Your task to perform on an android device: toggle priority inbox in the gmail app Image 0: 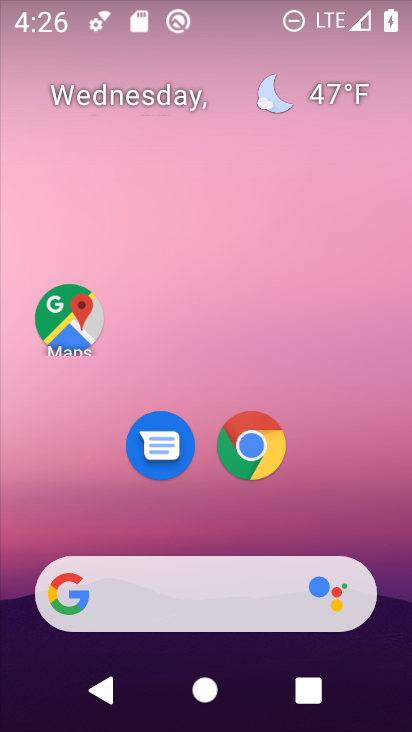
Step 0: drag from (349, 523) to (367, 40)
Your task to perform on an android device: toggle priority inbox in the gmail app Image 1: 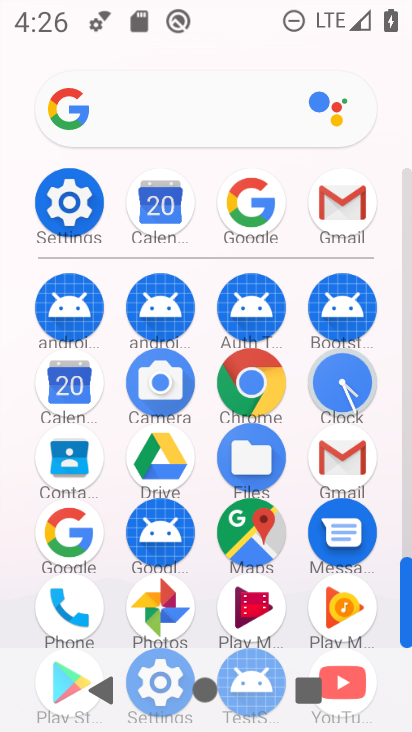
Step 1: click (341, 201)
Your task to perform on an android device: toggle priority inbox in the gmail app Image 2: 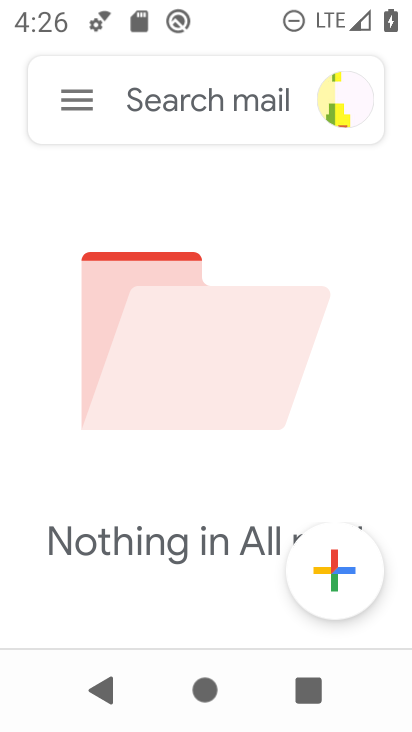
Step 2: click (76, 109)
Your task to perform on an android device: toggle priority inbox in the gmail app Image 3: 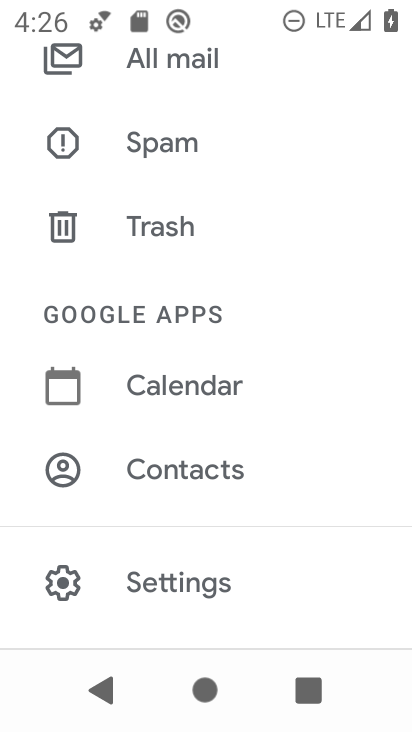
Step 3: click (199, 579)
Your task to perform on an android device: toggle priority inbox in the gmail app Image 4: 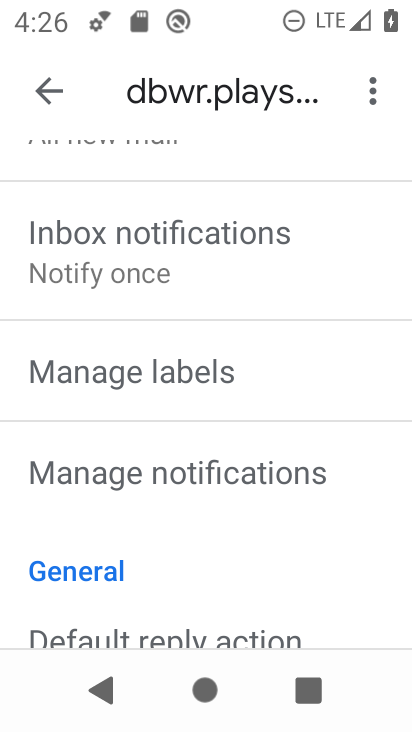
Step 4: drag from (216, 274) to (232, 409)
Your task to perform on an android device: toggle priority inbox in the gmail app Image 5: 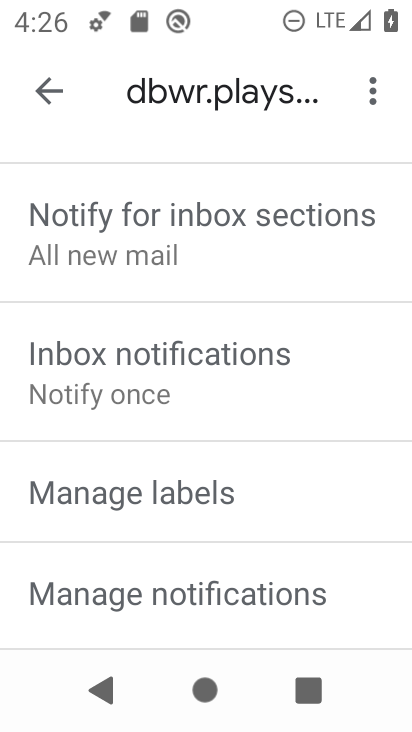
Step 5: drag from (199, 294) to (233, 435)
Your task to perform on an android device: toggle priority inbox in the gmail app Image 6: 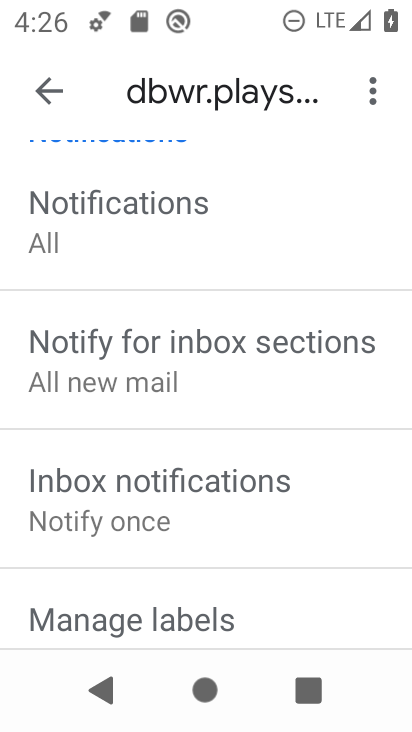
Step 6: drag from (215, 235) to (243, 441)
Your task to perform on an android device: toggle priority inbox in the gmail app Image 7: 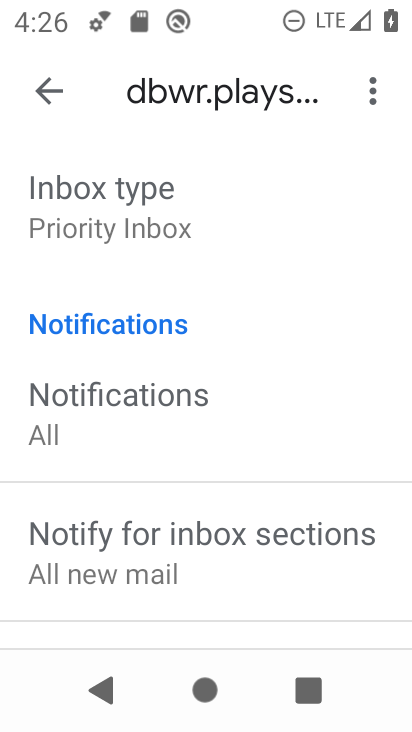
Step 7: click (159, 223)
Your task to perform on an android device: toggle priority inbox in the gmail app Image 8: 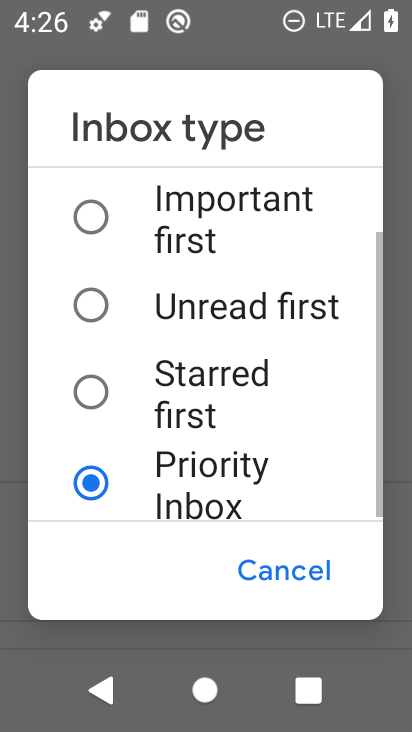
Step 8: click (201, 211)
Your task to perform on an android device: toggle priority inbox in the gmail app Image 9: 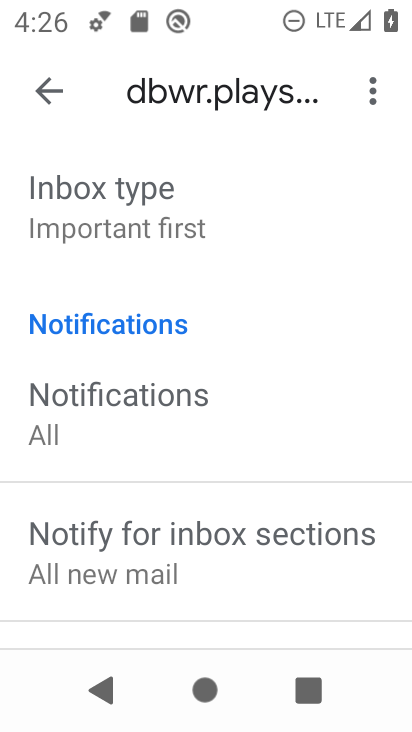
Step 9: task complete